Your task to perform on an android device: empty trash in the gmail app Image 0: 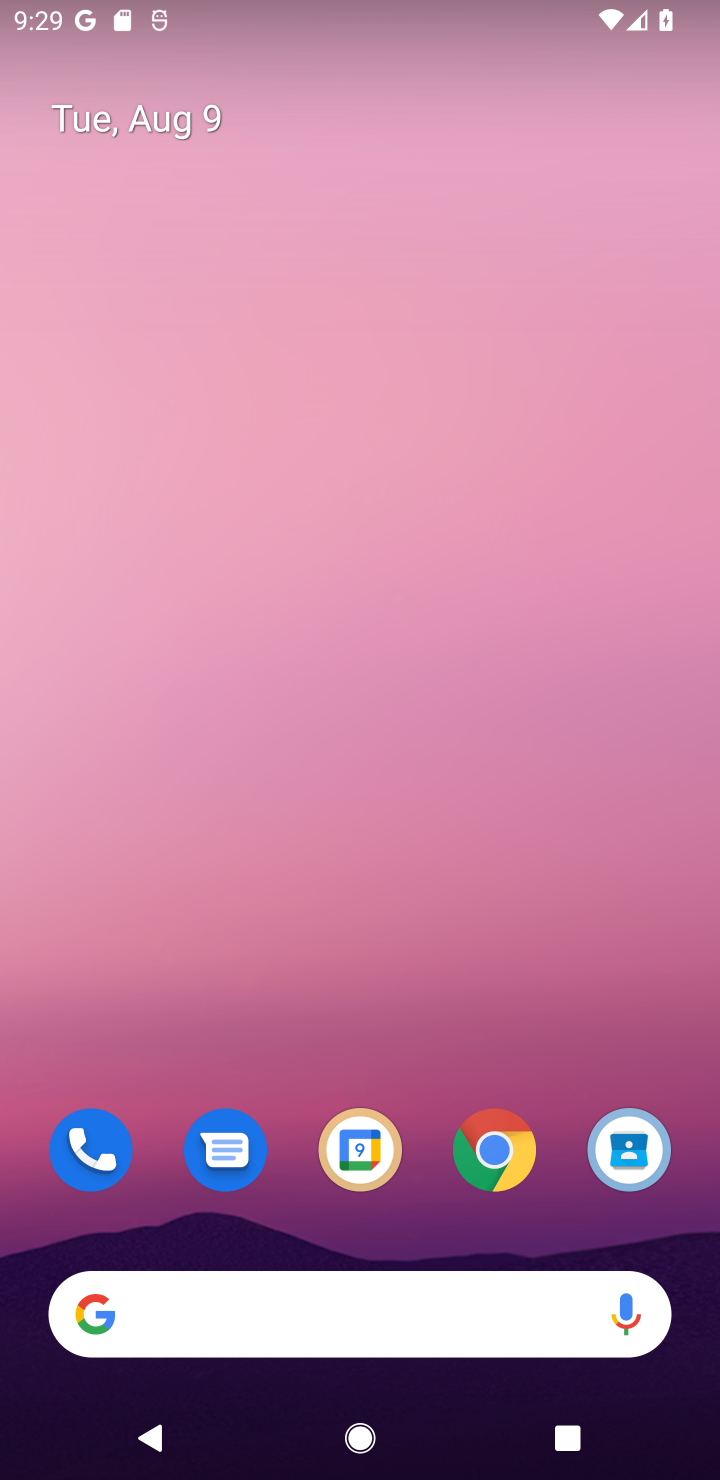
Step 0: drag from (416, 1245) to (468, 73)
Your task to perform on an android device: empty trash in the gmail app Image 1: 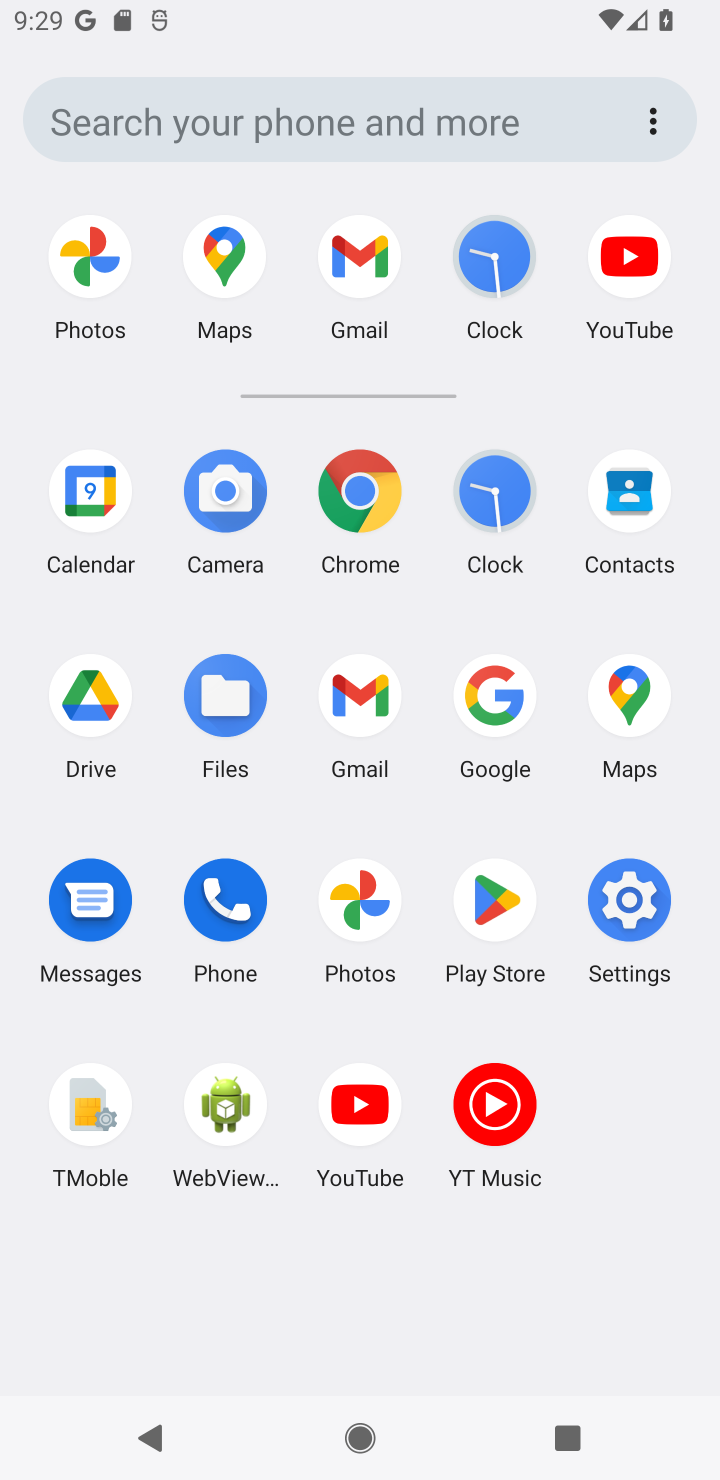
Step 1: click (372, 729)
Your task to perform on an android device: empty trash in the gmail app Image 2: 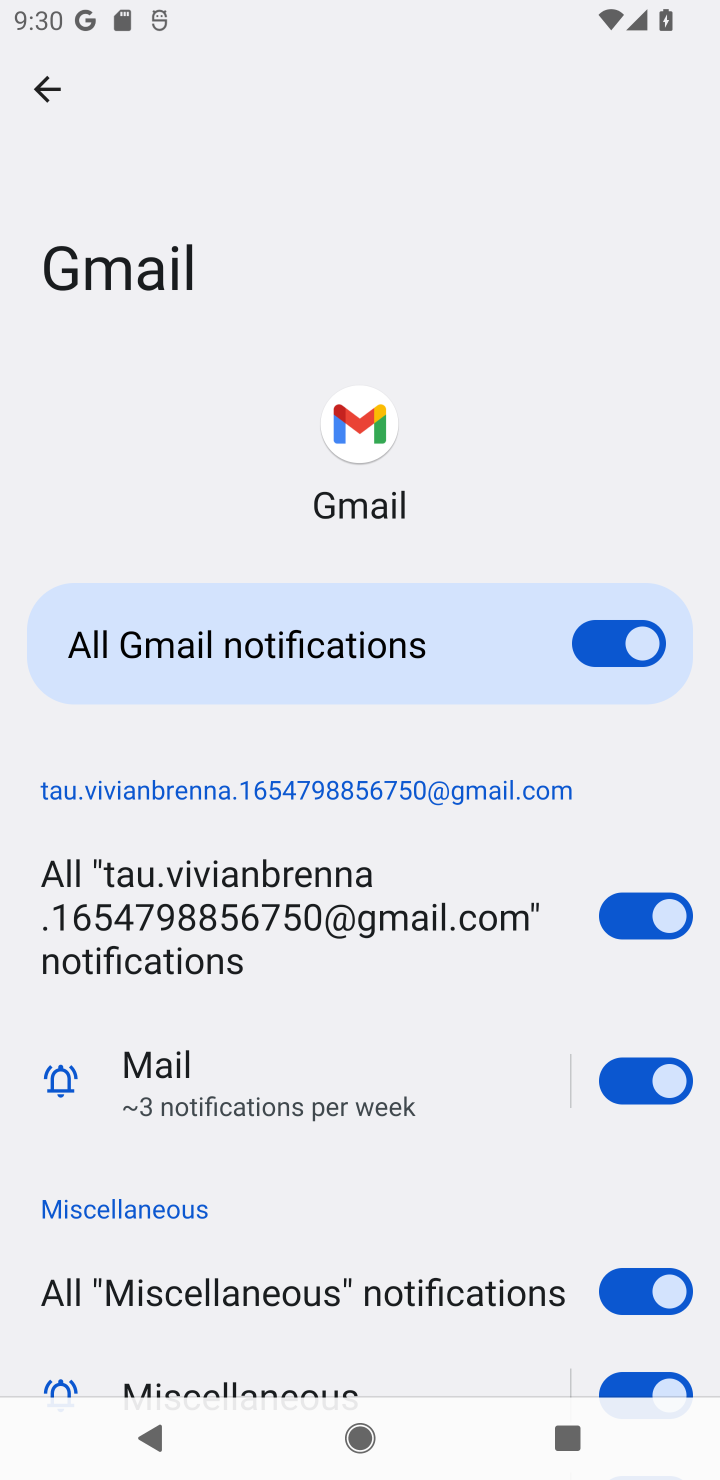
Step 2: click (44, 88)
Your task to perform on an android device: empty trash in the gmail app Image 3: 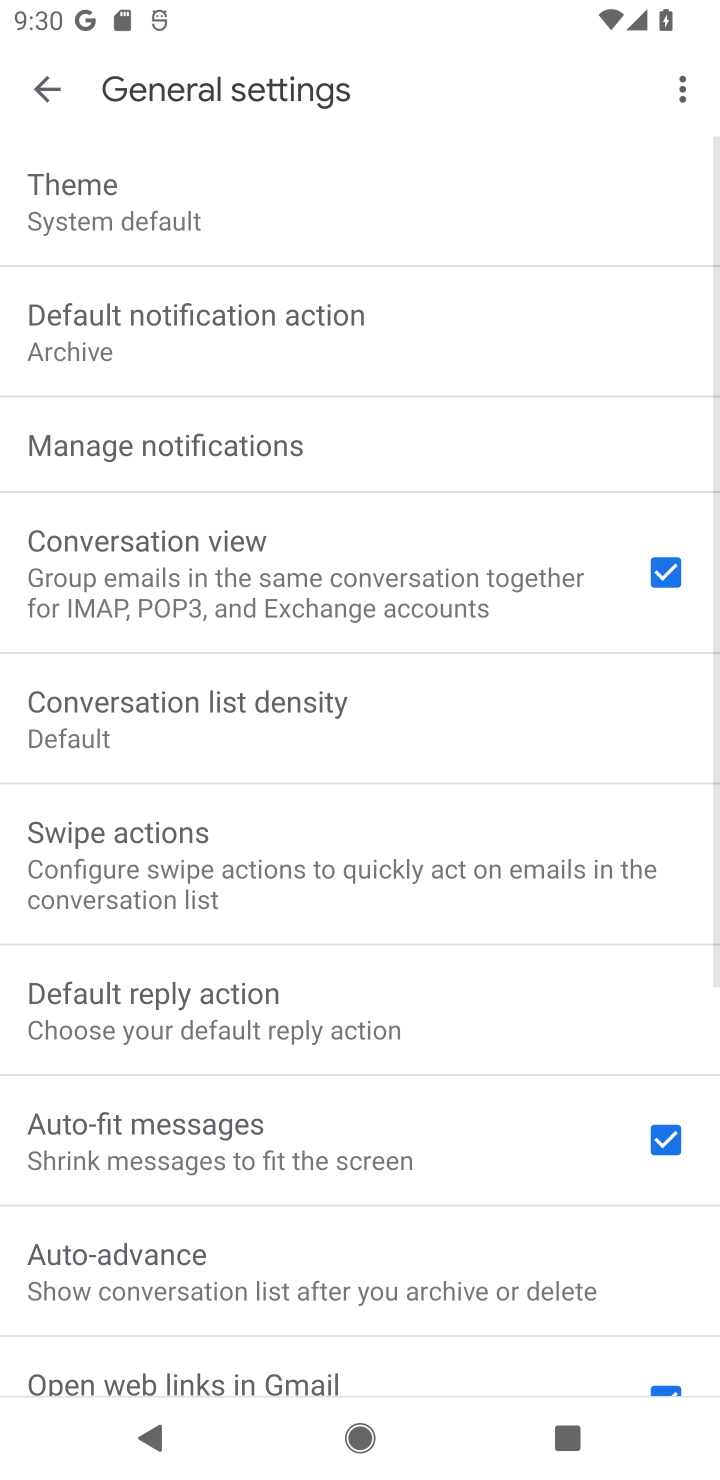
Step 3: click (44, 88)
Your task to perform on an android device: empty trash in the gmail app Image 4: 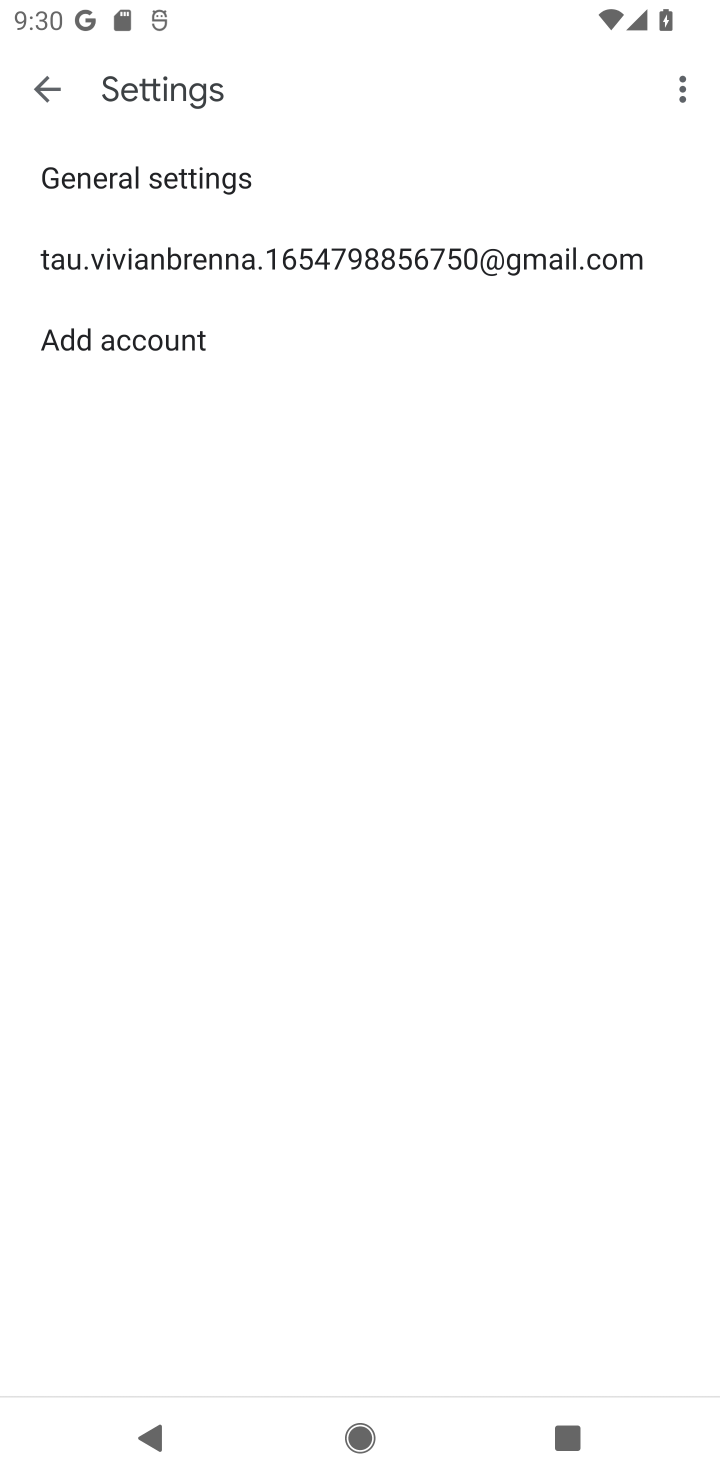
Step 4: click (44, 88)
Your task to perform on an android device: empty trash in the gmail app Image 5: 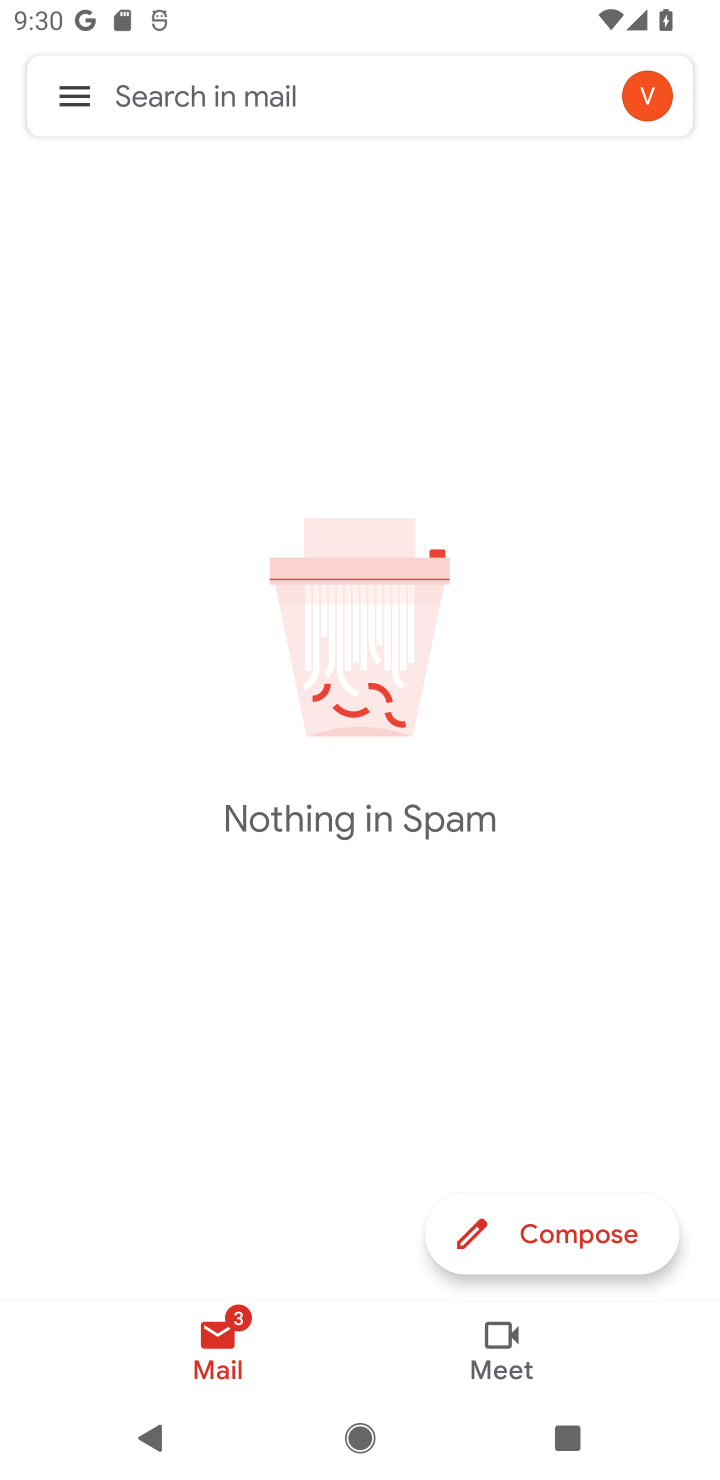
Step 5: click (76, 109)
Your task to perform on an android device: empty trash in the gmail app Image 6: 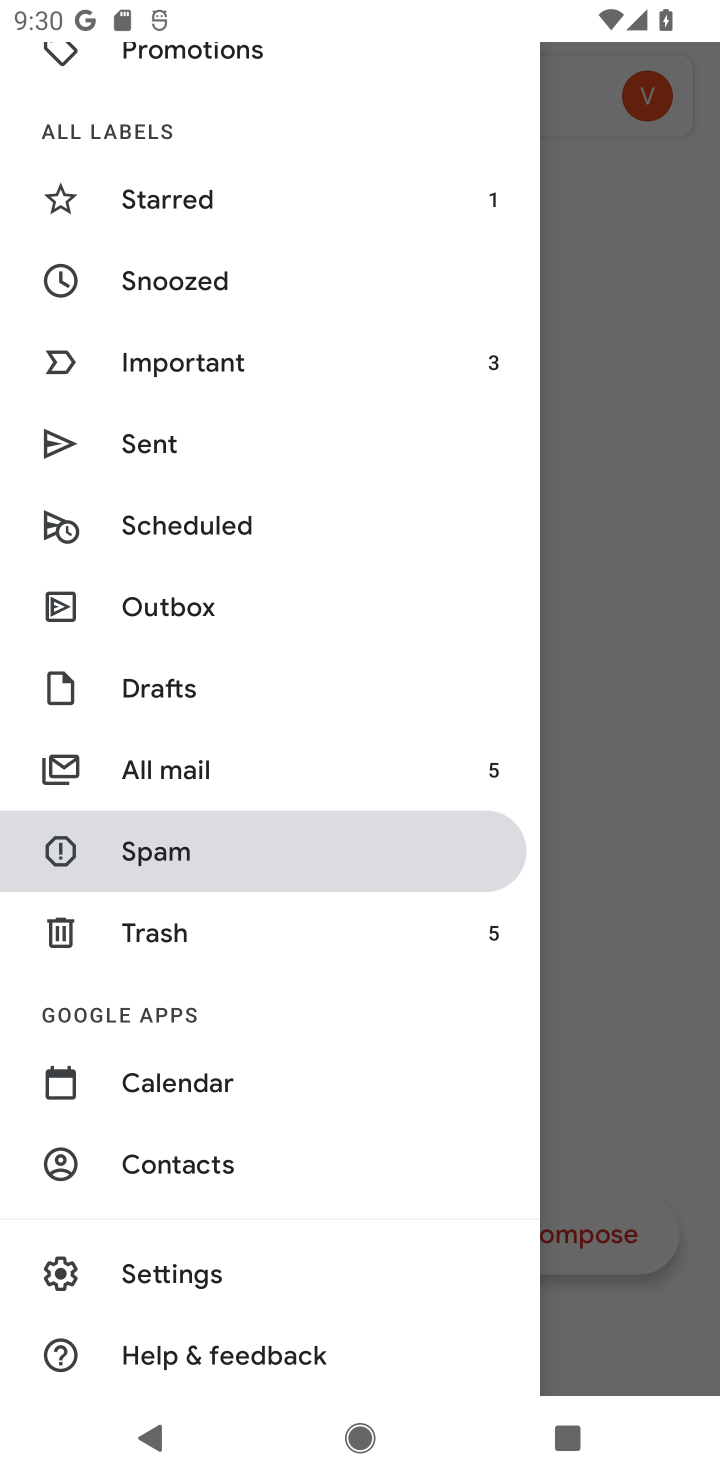
Step 6: click (232, 761)
Your task to perform on an android device: empty trash in the gmail app Image 7: 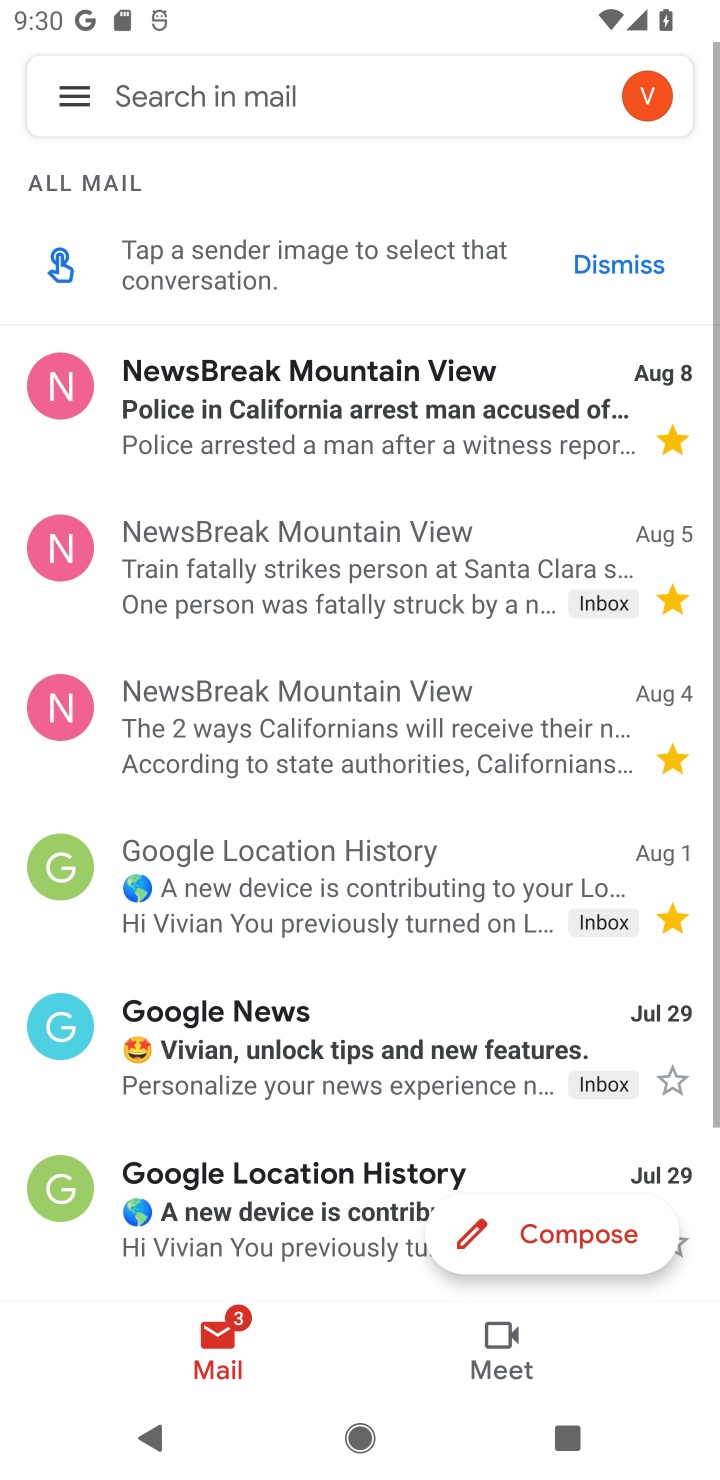
Step 7: click (70, 87)
Your task to perform on an android device: empty trash in the gmail app Image 8: 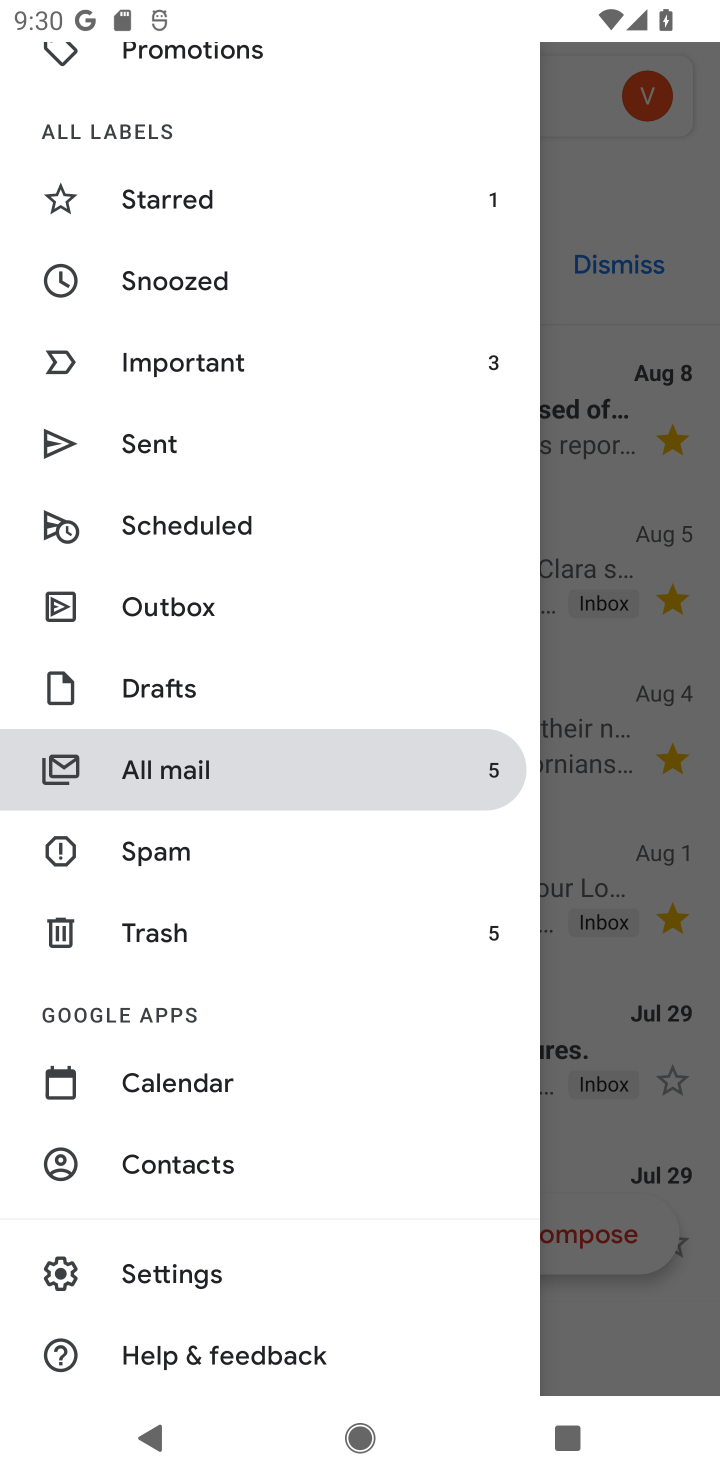
Step 8: click (115, 924)
Your task to perform on an android device: empty trash in the gmail app Image 9: 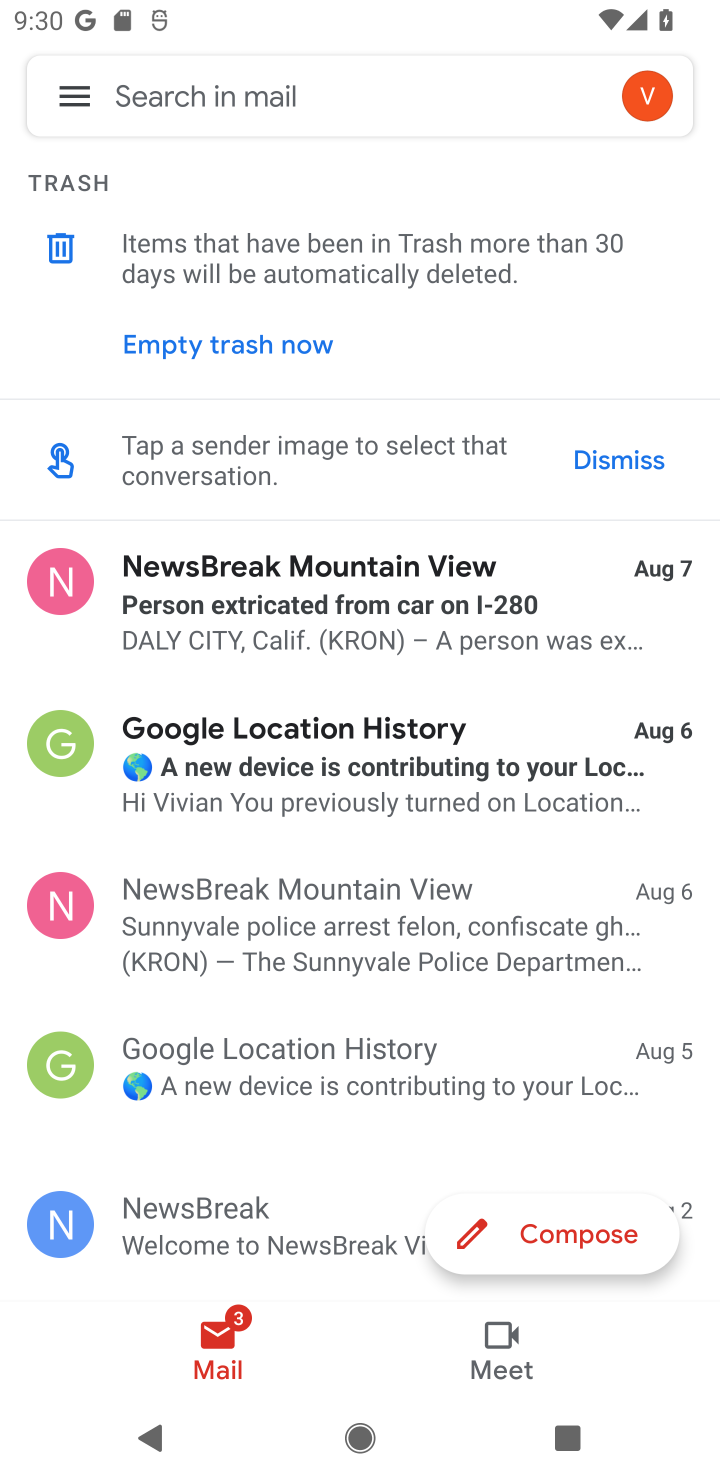
Step 9: click (244, 351)
Your task to perform on an android device: empty trash in the gmail app Image 10: 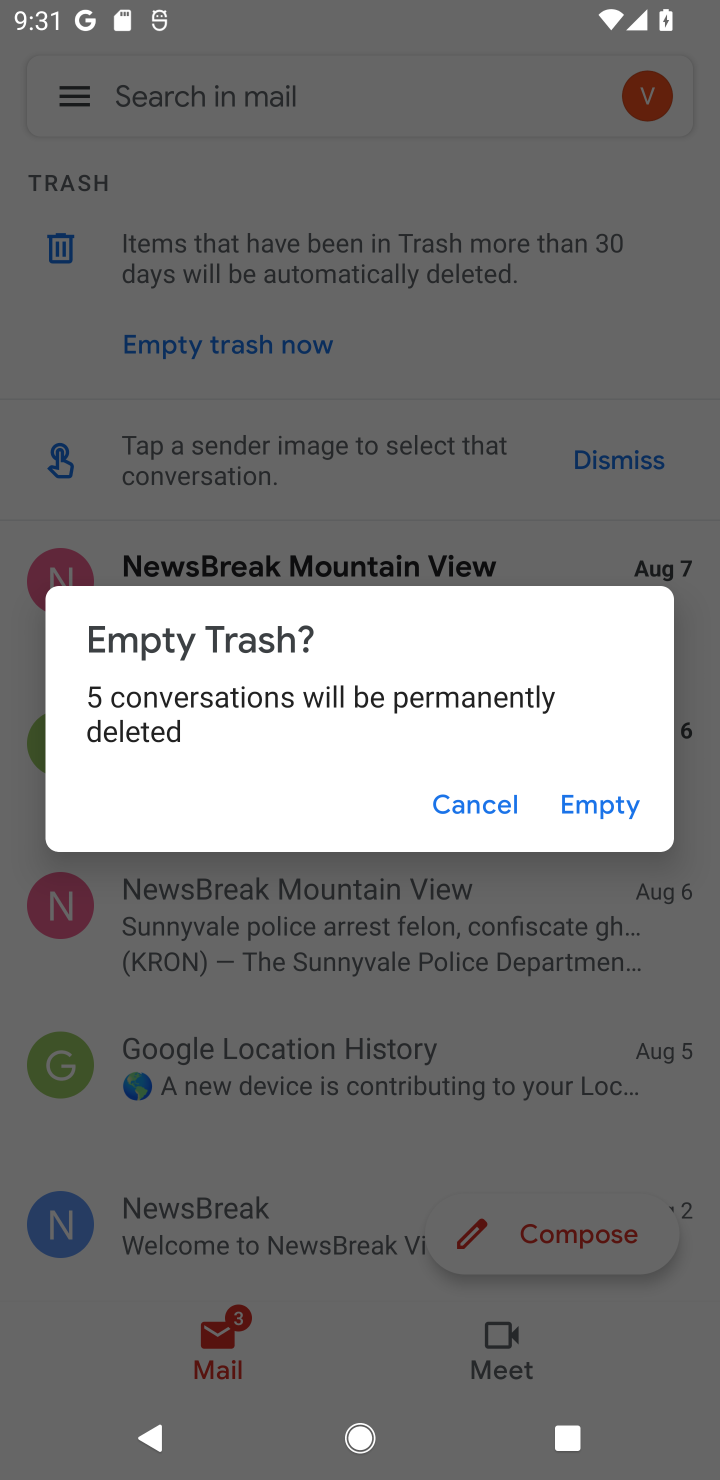
Step 10: click (603, 800)
Your task to perform on an android device: empty trash in the gmail app Image 11: 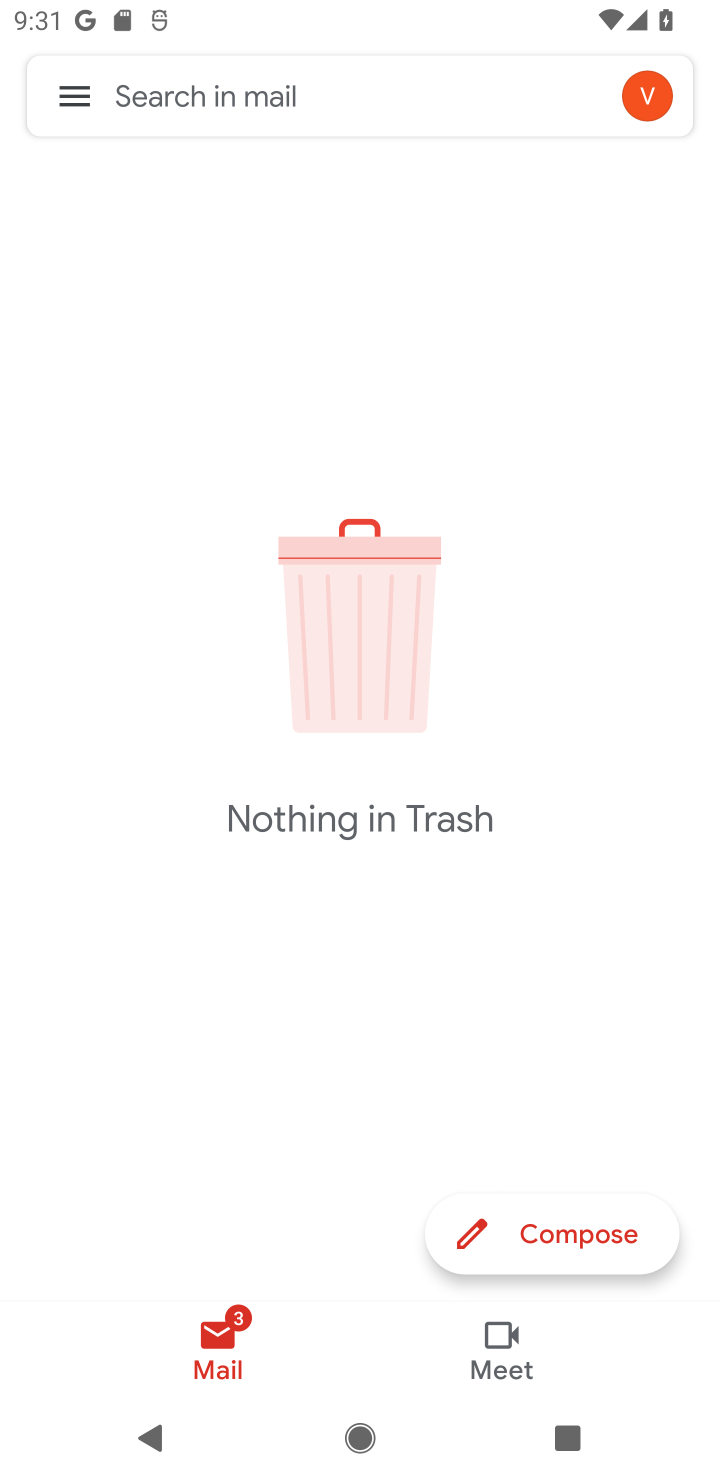
Step 11: task complete